Your task to perform on an android device: Go to eBay Image 0: 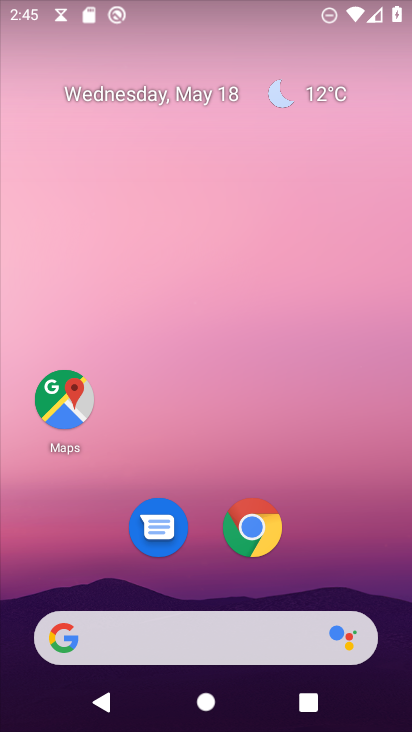
Step 0: click (255, 531)
Your task to perform on an android device: Go to eBay Image 1: 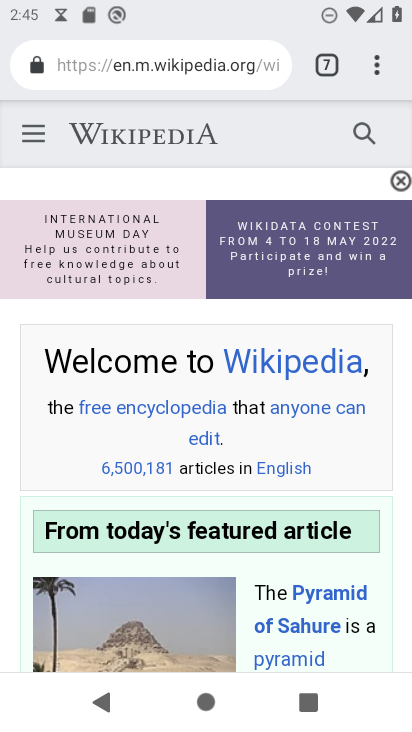
Step 1: click (335, 60)
Your task to perform on an android device: Go to eBay Image 2: 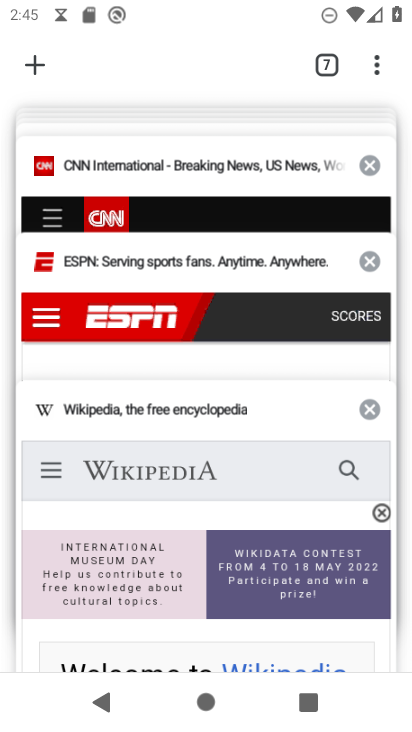
Step 2: drag from (177, 206) to (149, 632)
Your task to perform on an android device: Go to eBay Image 3: 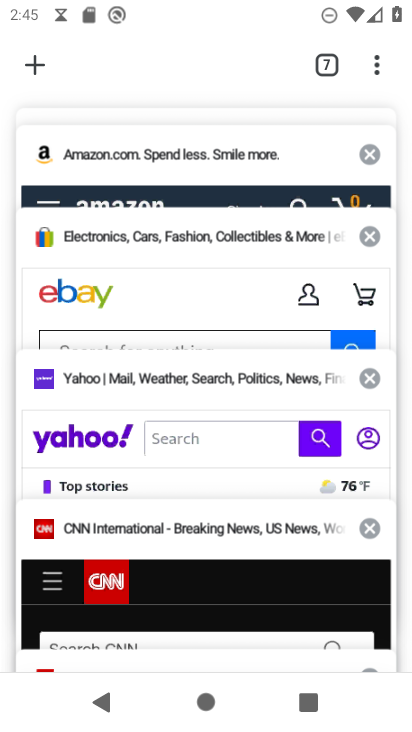
Step 3: click (120, 291)
Your task to perform on an android device: Go to eBay Image 4: 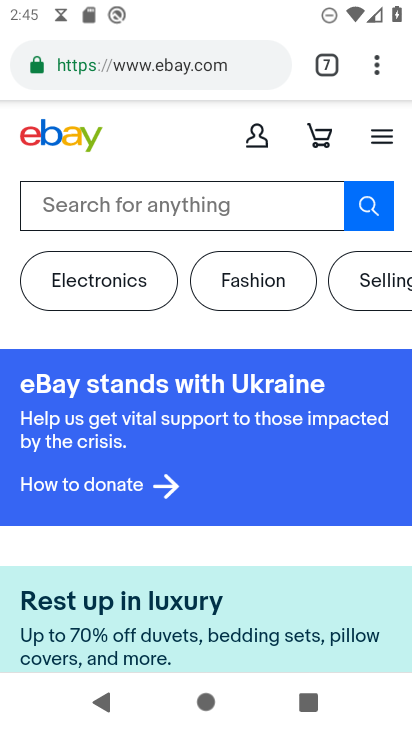
Step 4: task complete